Your task to perform on an android device: Check the weather Image 0: 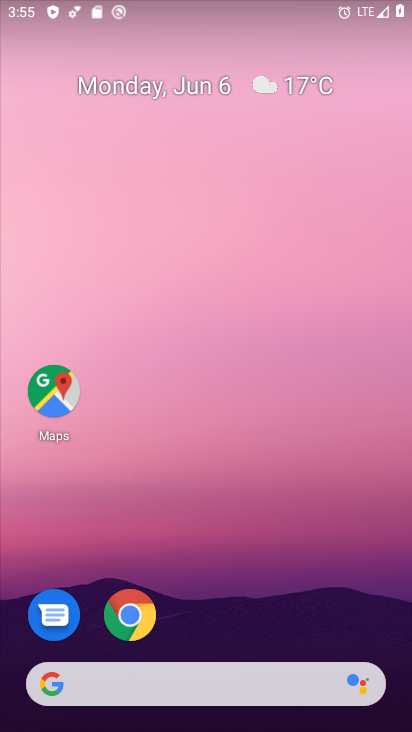
Step 0: drag from (264, 566) to (204, 44)
Your task to perform on an android device: Check the weather Image 1: 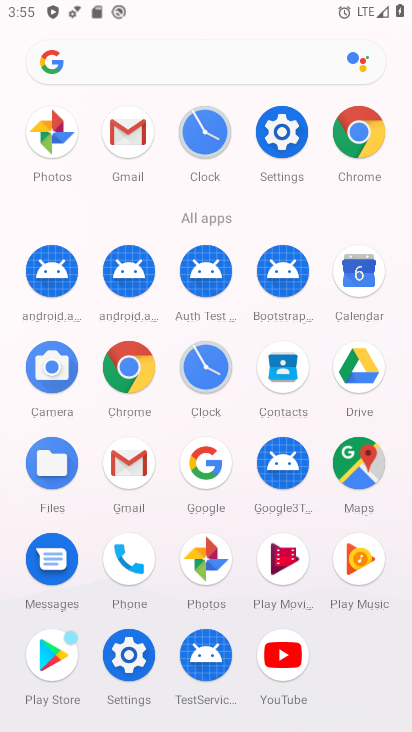
Step 1: drag from (3, 592) to (28, 212)
Your task to perform on an android device: Check the weather Image 2: 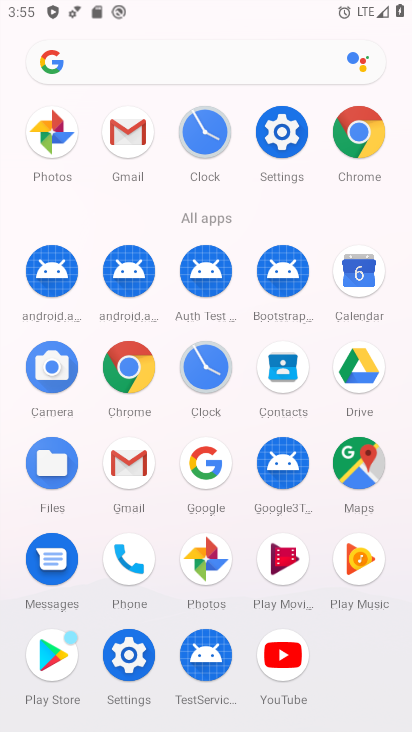
Step 2: click (131, 368)
Your task to perform on an android device: Check the weather Image 3: 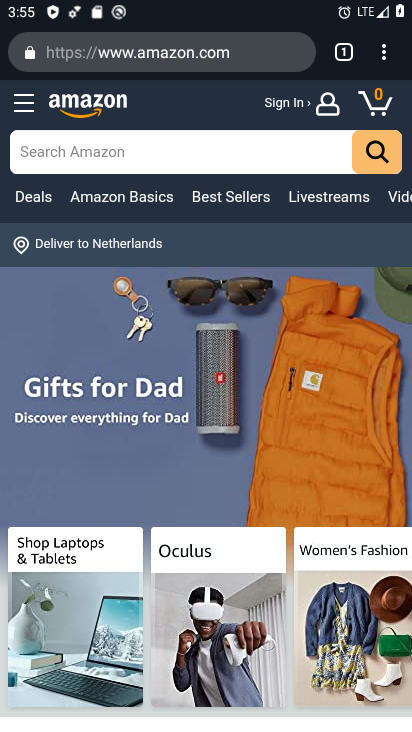
Step 3: click (217, 41)
Your task to perform on an android device: Check the weather Image 4: 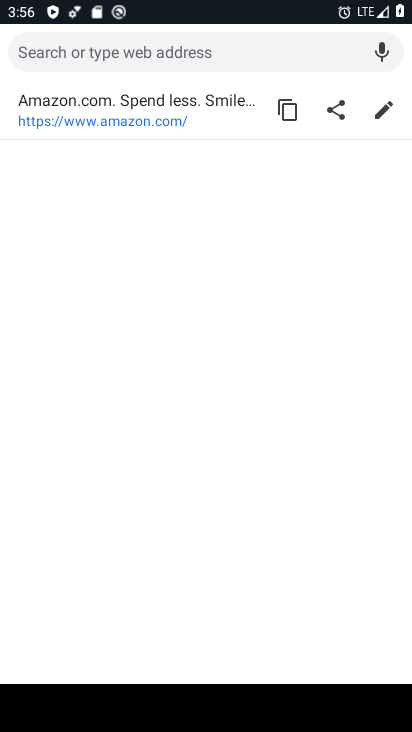
Step 4: type "Check the weather"
Your task to perform on an android device: Check the weather Image 5: 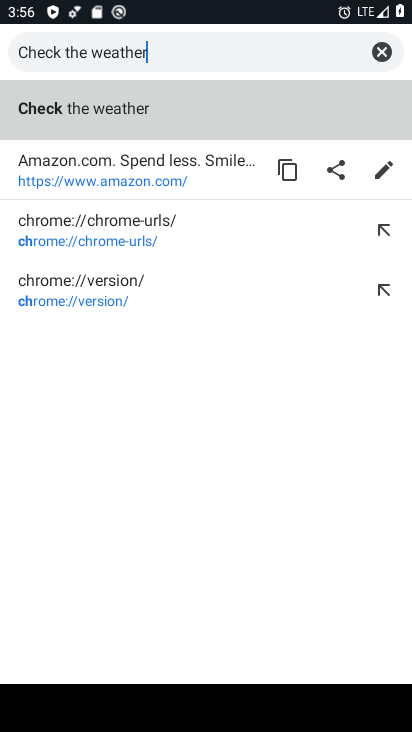
Step 5: type ""
Your task to perform on an android device: Check the weather Image 6: 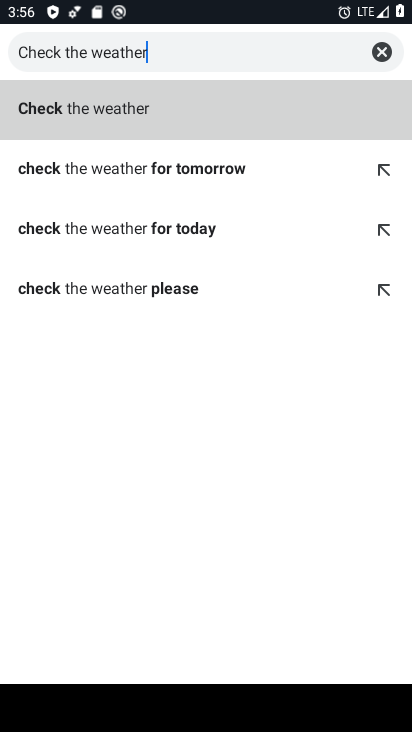
Step 6: click (254, 116)
Your task to perform on an android device: Check the weather Image 7: 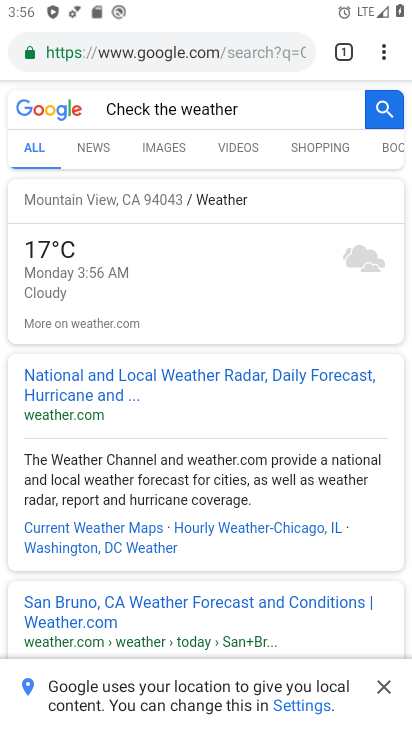
Step 7: task complete